Your task to perform on an android device: Show me popular games on the Play Store Image 0: 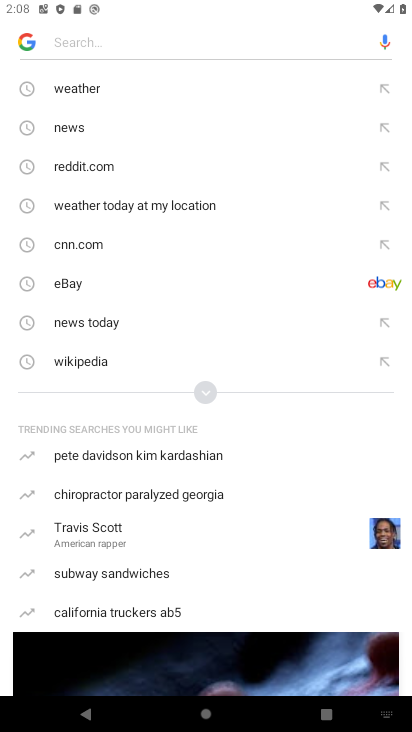
Step 0: press home button
Your task to perform on an android device: Show me popular games on the Play Store Image 1: 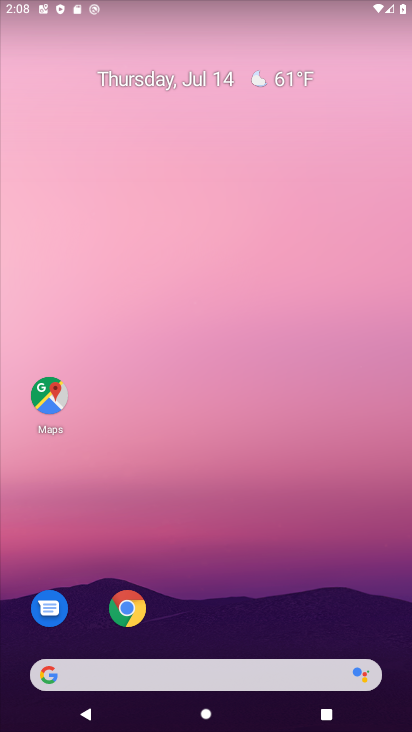
Step 1: drag from (188, 650) to (181, 286)
Your task to perform on an android device: Show me popular games on the Play Store Image 2: 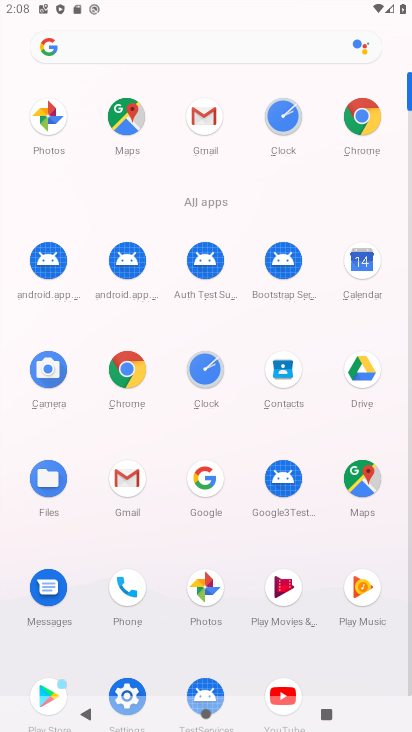
Step 2: click (48, 689)
Your task to perform on an android device: Show me popular games on the Play Store Image 3: 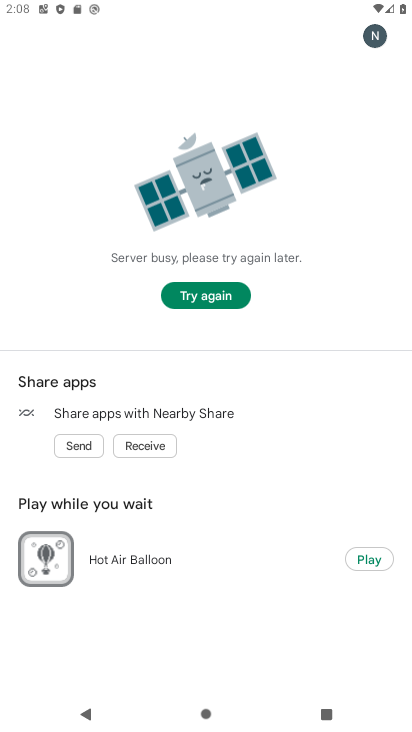
Step 3: click (232, 296)
Your task to perform on an android device: Show me popular games on the Play Store Image 4: 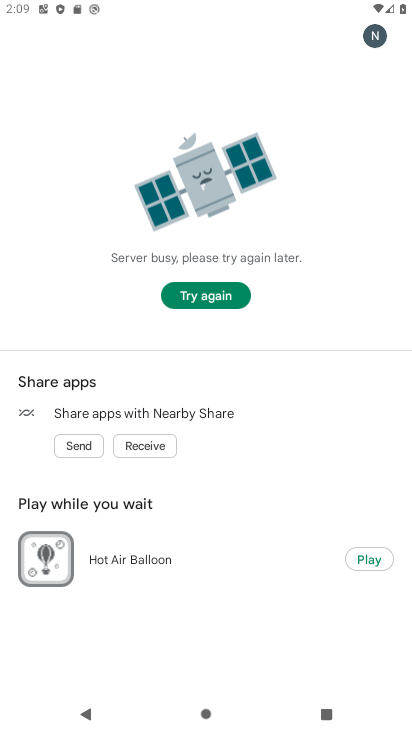
Step 4: task complete